Your task to perform on an android device: Go to Reddit.com Image 0: 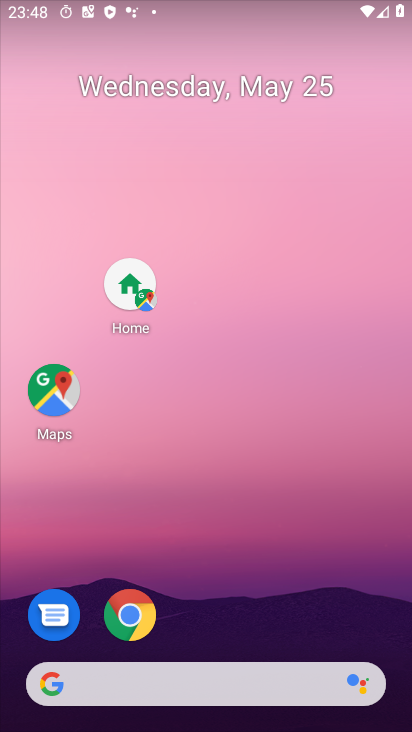
Step 0: press home button
Your task to perform on an android device: Go to Reddit.com Image 1: 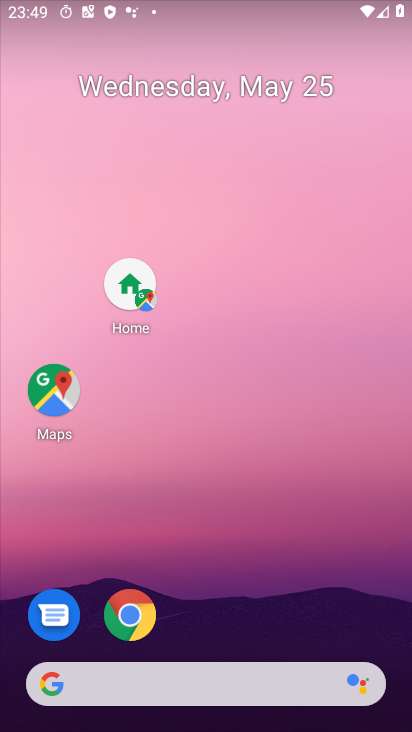
Step 1: click (49, 682)
Your task to perform on an android device: Go to Reddit.com Image 2: 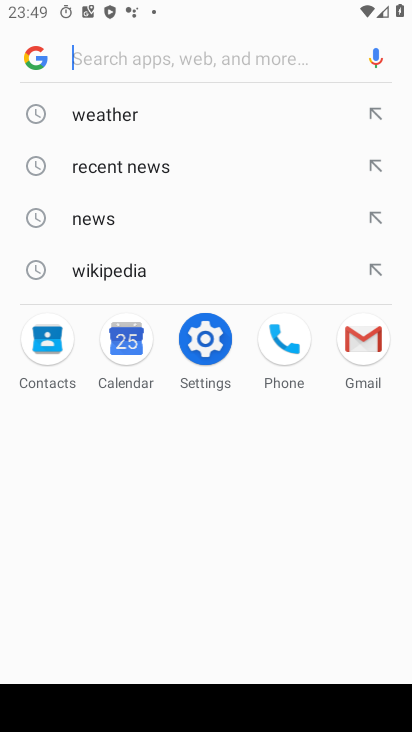
Step 2: type "Reddit.com"
Your task to perform on an android device: Go to Reddit.com Image 3: 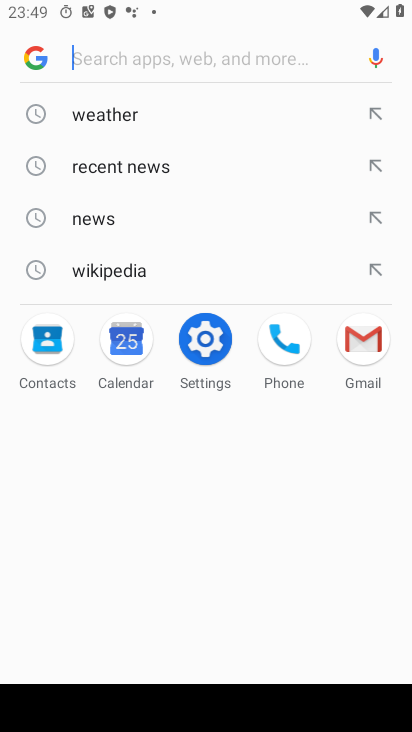
Step 3: click (190, 62)
Your task to perform on an android device: Go to Reddit.com Image 4: 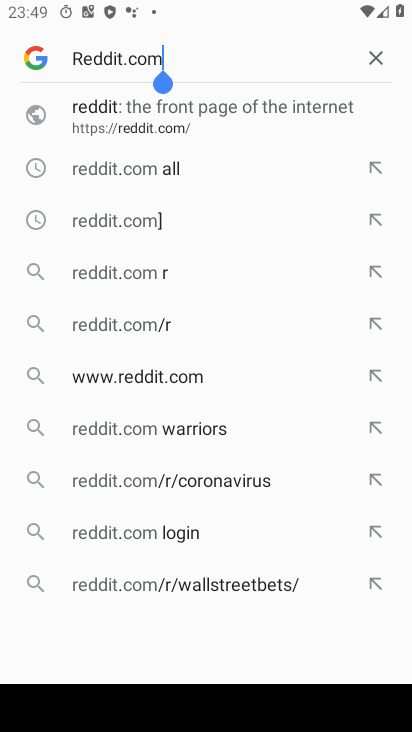
Step 4: click (108, 115)
Your task to perform on an android device: Go to Reddit.com Image 5: 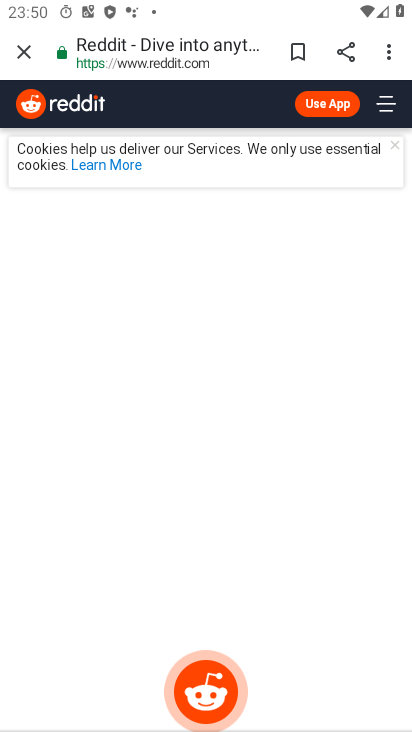
Step 5: task complete